Your task to perform on an android device: Show me recent news Image 0: 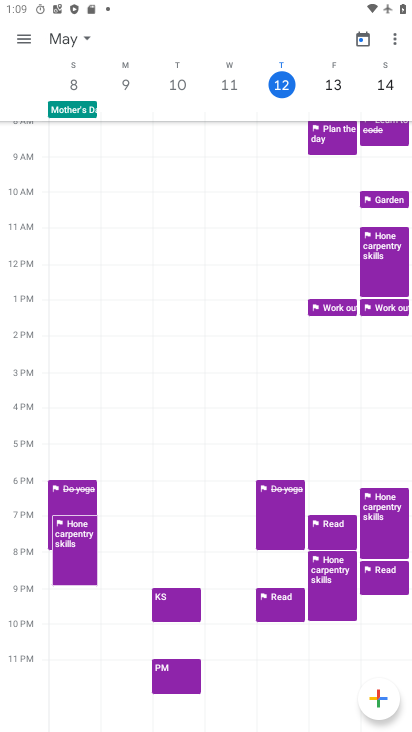
Step 0: press home button
Your task to perform on an android device: Show me recent news Image 1: 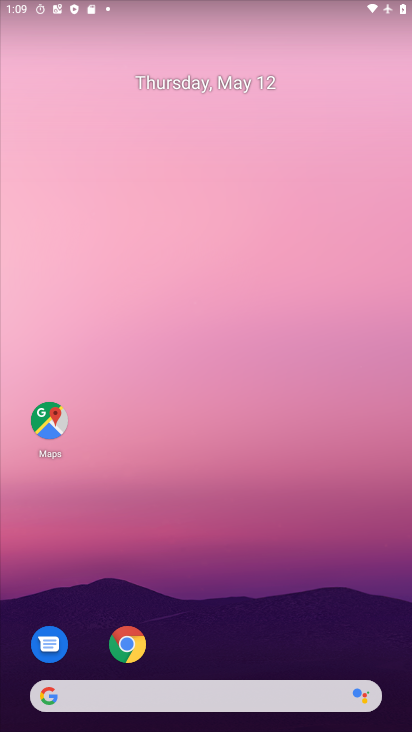
Step 1: drag from (194, 471) to (147, 43)
Your task to perform on an android device: Show me recent news Image 2: 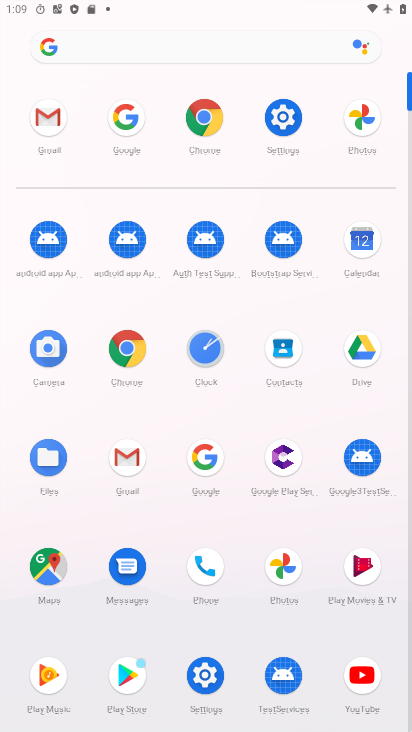
Step 2: click (212, 472)
Your task to perform on an android device: Show me recent news Image 3: 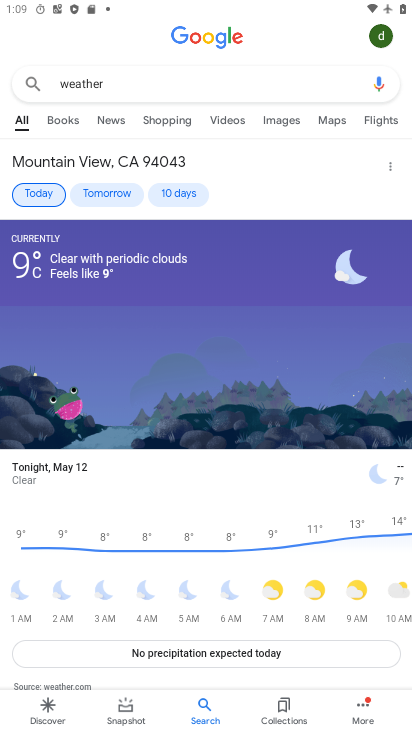
Step 3: click (130, 86)
Your task to perform on an android device: Show me recent news Image 4: 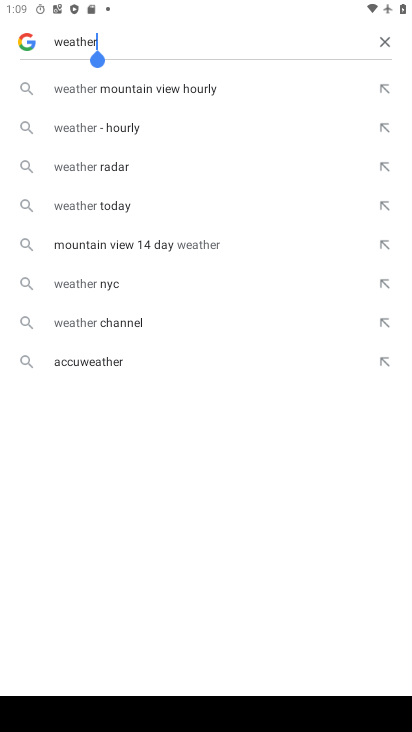
Step 4: click (386, 39)
Your task to perform on an android device: Show me recent news Image 5: 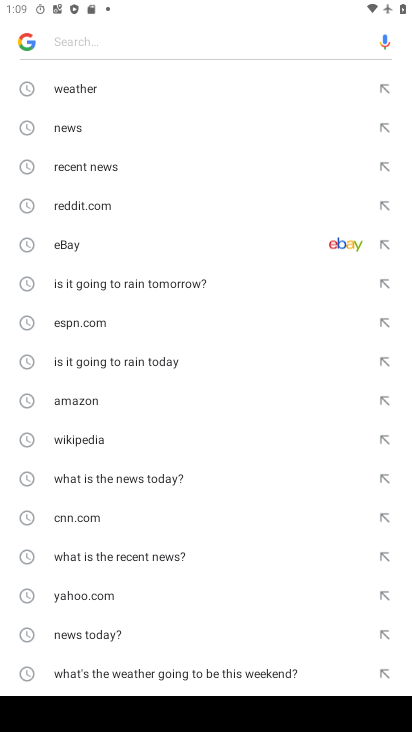
Step 5: click (85, 166)
Your task to perform on an android device: Show me recent news Image 6: 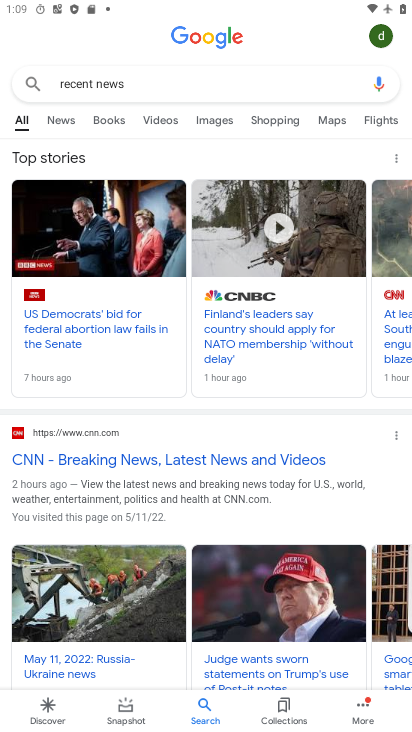
Step 6: task complete